Your task to perform on an android device: turn on priority inbox in the gmail app Image 0: 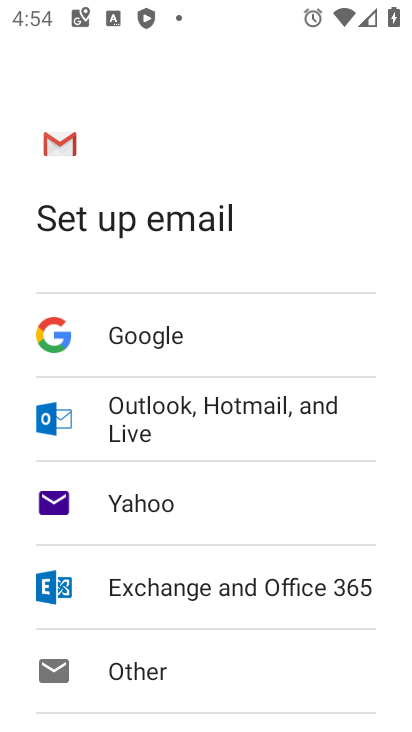
Step 0: press home button
Your task to perform on an android device: turn on priority inbox in the gmail app Image 1: 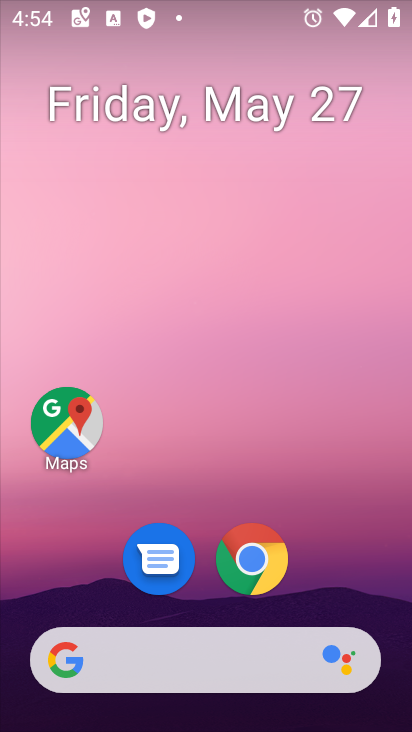
Step 1: drag from (294, 671) to (373, 18)
Your task to perform on an android device: turn on priority inbox in the gmail app Image 2: 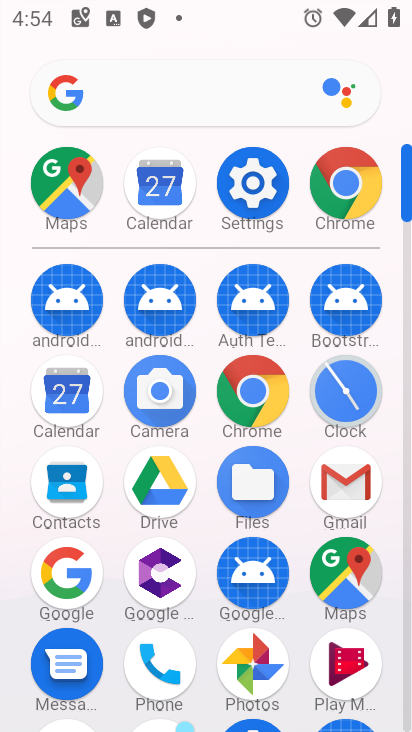
Step 2: click (331, 486)
Your task to perform on an android device: turn on priority inbox in the gmail app Image 3: 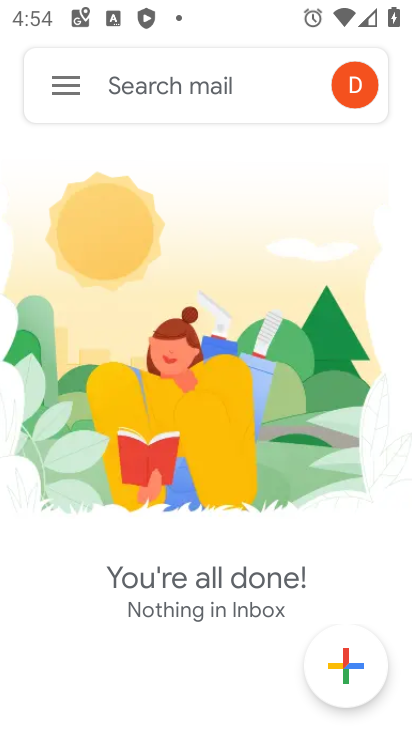
Step 3: click (52, 78)
Your task to perform on an android device: turn on priority inbox in the gmail app Image 4: 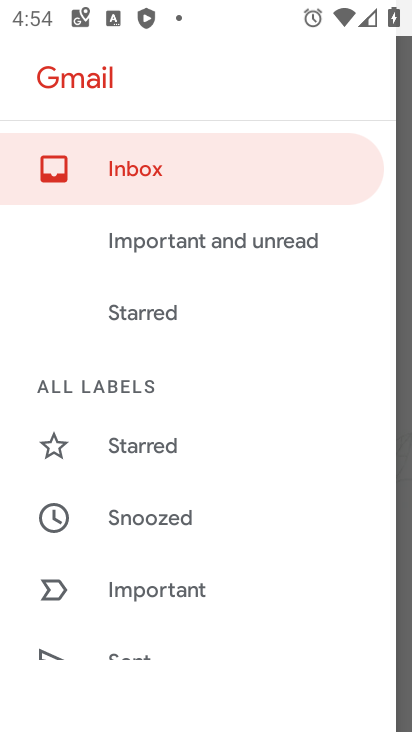
Step 4: drag from (195, 652) to (235, 52)
Your task to perform on an android device: turn on priority inbox in the gmail app Image 5: 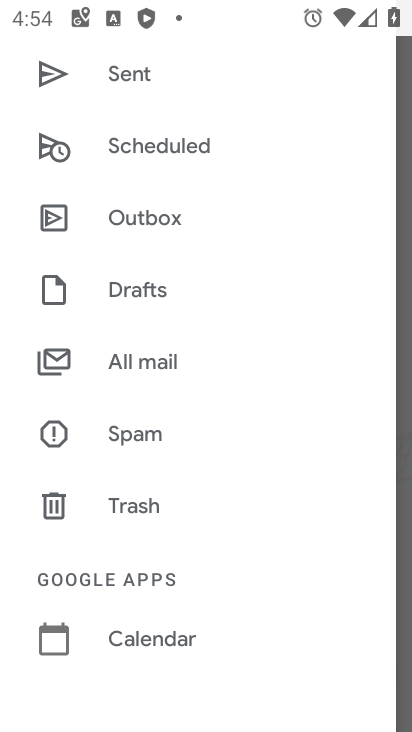
Step 5: drag from (179, 616) to (210, 139)
Your task to perform on an android device: turn on priority inbox in the gmail app Image 6: 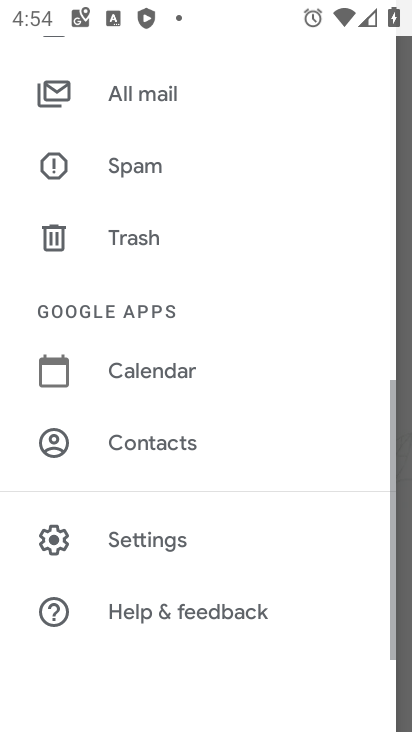
Step 6: click (188, 542)
Your task to perform on an android device: turn on priority inbox in the gmail app Image 7: 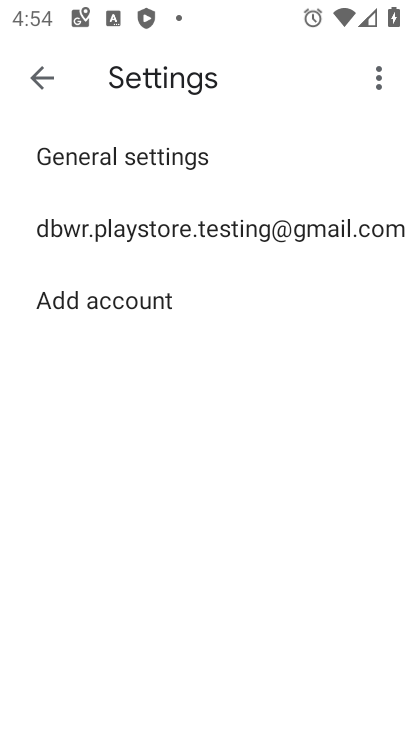
Step 7: click (167, 227)
Your task to perform on an android device: turn on priority inbox in the gmail app Image 8: 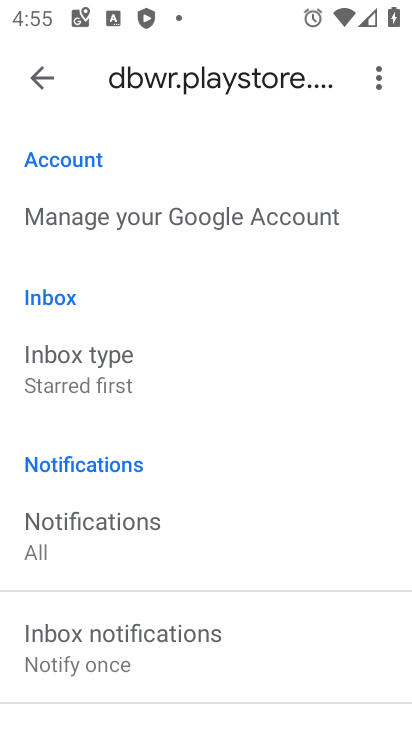
Step 8: click (157, 369)
Your task to perform on an android device: turn on priority inbox in the gmail app Image 9: 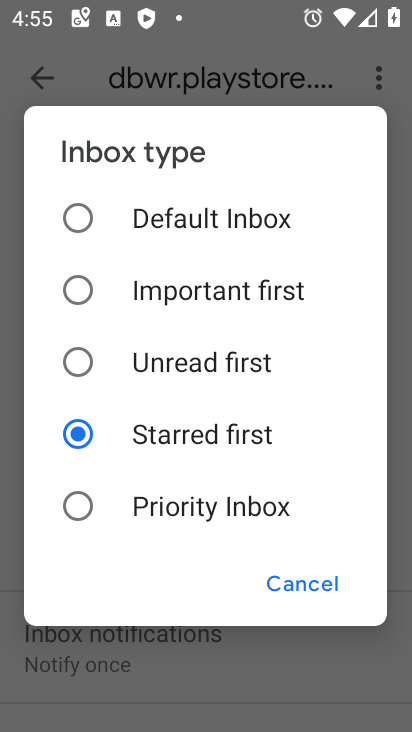
Step 9: click (80, 508)
Your task to perform on an android device: turn on priority inbox in the gmail app Image 10: 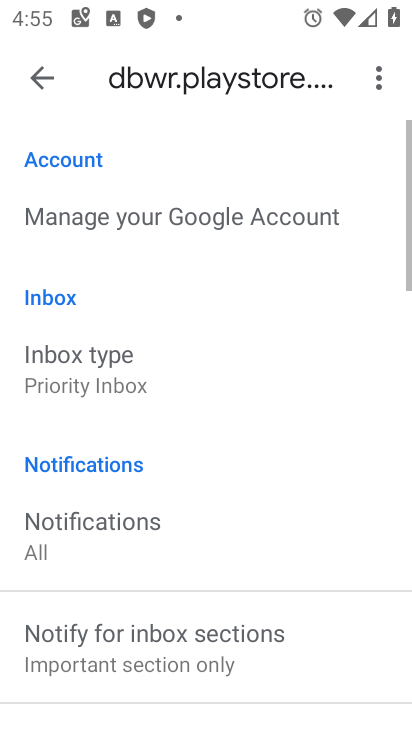
Step 10: task complete